Your task to perform on an android device: Open Amazon Image 0: 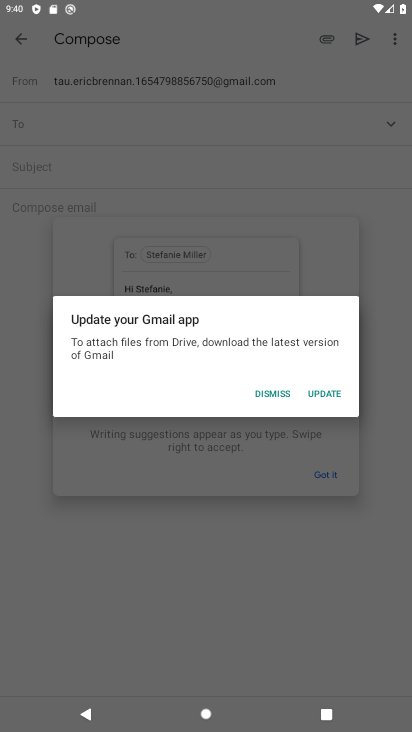
Step 0: press home button
Your task to perform on an android device: Open Amazon Image 1: 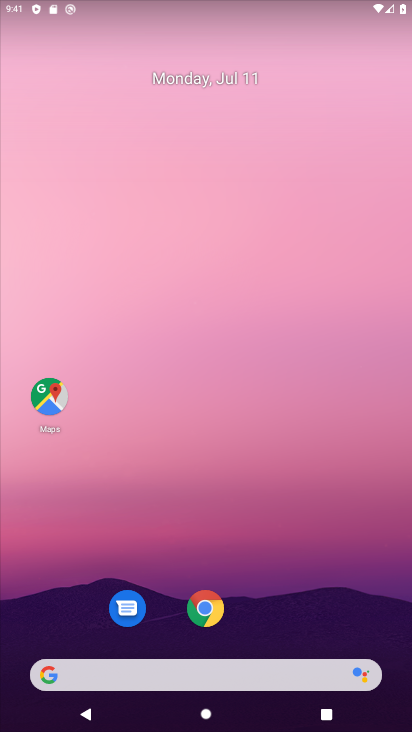
Step 1: click (145, 670)
Your task to perform on an android device: Open Amazon Image 2: 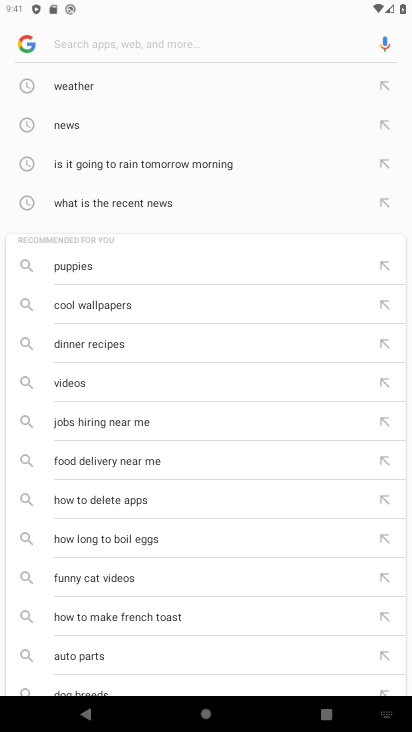
Step 2: type " Amazon"
Your task to perform on an android device: Open Amazon Image 3: 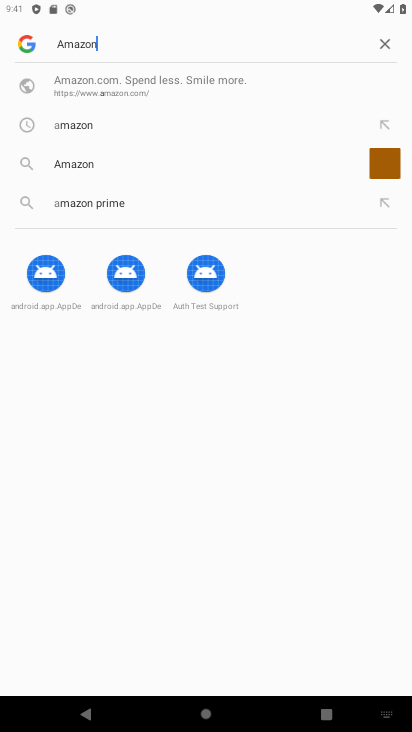
Step 3: type ""
Your task to perform on an android device: Open Amazon Image 4: 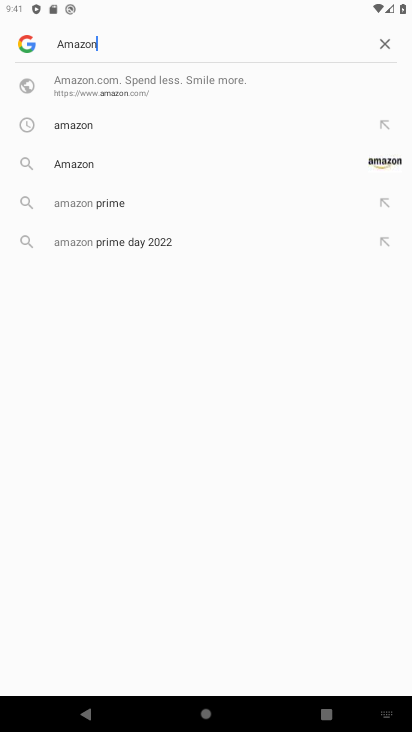
Step 4: click (75, 117)
Your task to perform on an android device: Open Amazon Image 5: 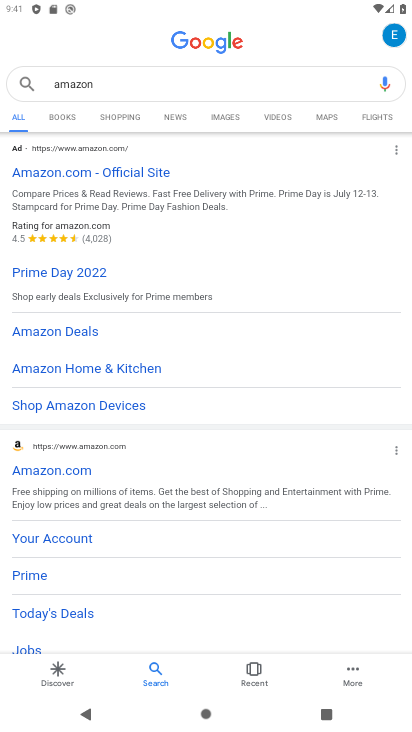
Step 5: task complete